Your task to perform on an android device: all mails in gmail Image 0: 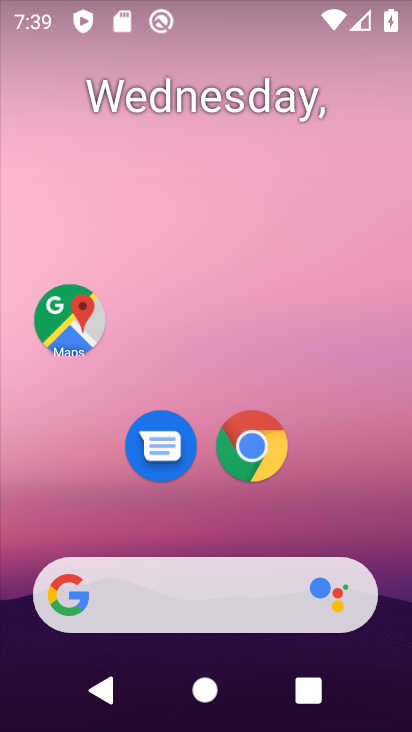
Step 0: drag from (384, 708) to (311, 38)
Your task to perform on an android device: all mails in gmail Image 1: 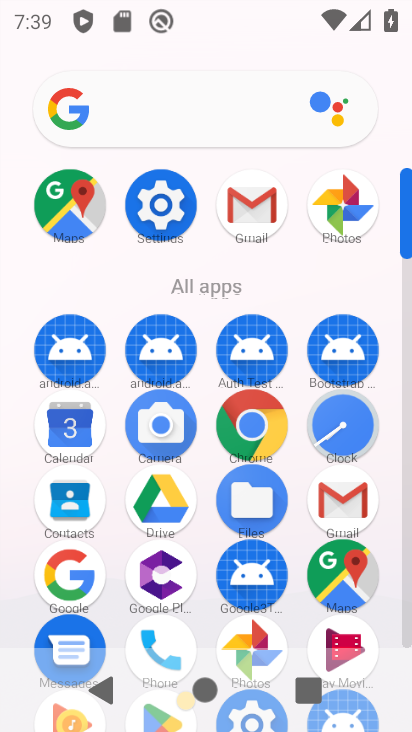
Step 1: click (333, 505)
Your task to perform on an android device: all mails in gmail Image 2: 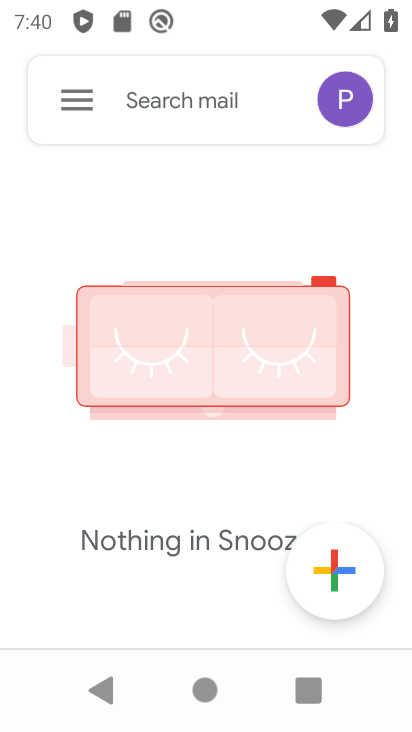
Step 2: click (77, 101)
Your task to perform on an android device: all mails in gmail Image 3: 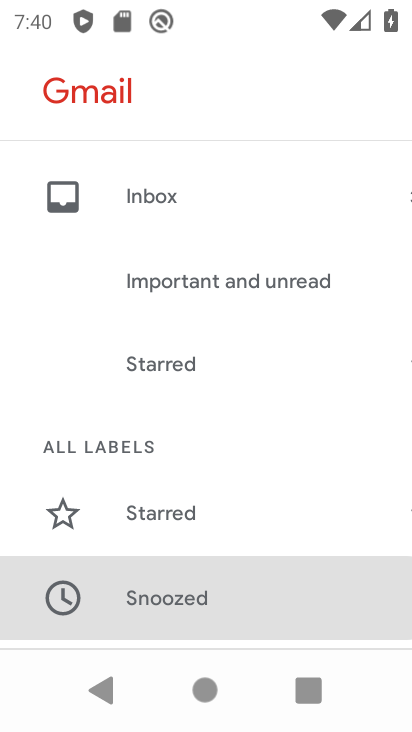
Step 3: drag from (307, 602) to (316, 142)
Your task to perform on an android device: all mails in gmail Image 4: 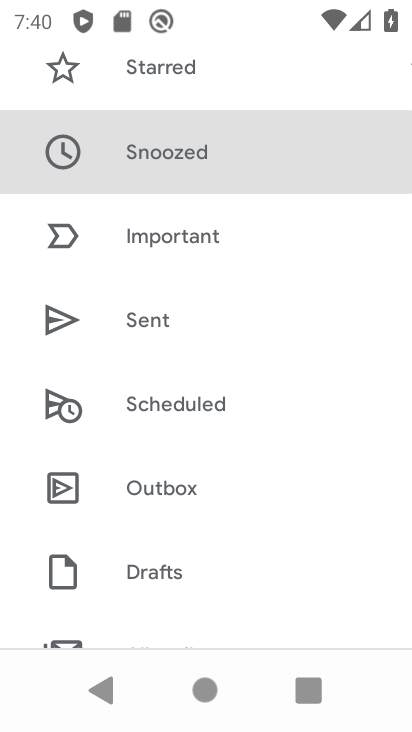
Step 4: drag from (272, 625) to (251, 153)
Your task to perform on an android device: all mails in gmail Image 5: 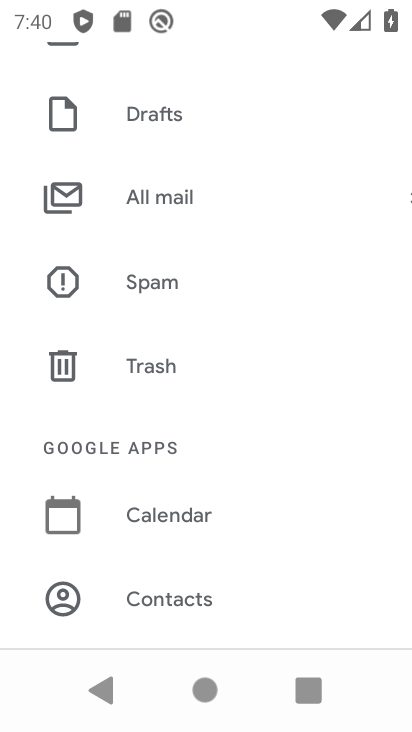
Step 5: click (124, 196)
Your task to perform on an android device: all mails in gmail Image 6: 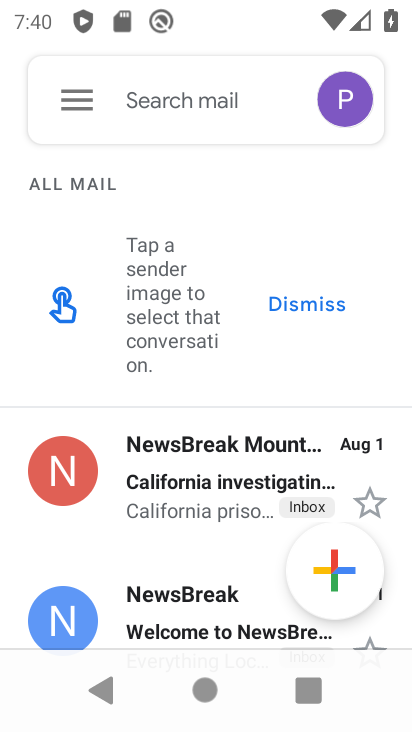
Step 6: task complete